Your task to perform on an android device: Open Google Chrome and click the shortcut for Amazon.com Image 0: 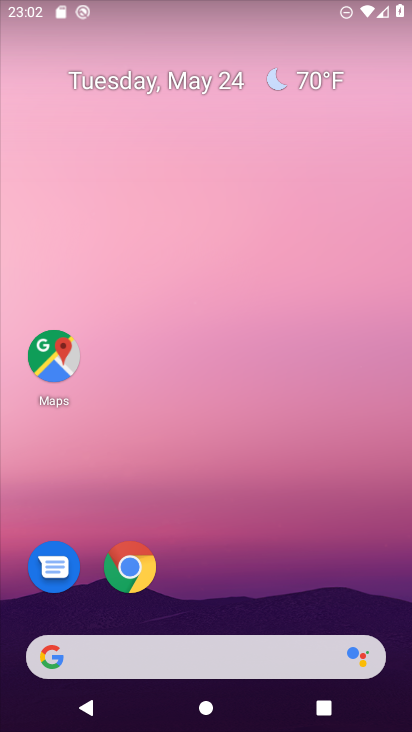
Step 0: click (128, 560)
Your task to perform on an android device: Open Google Chrome and click the shortcut for Amazon.com Image 1: 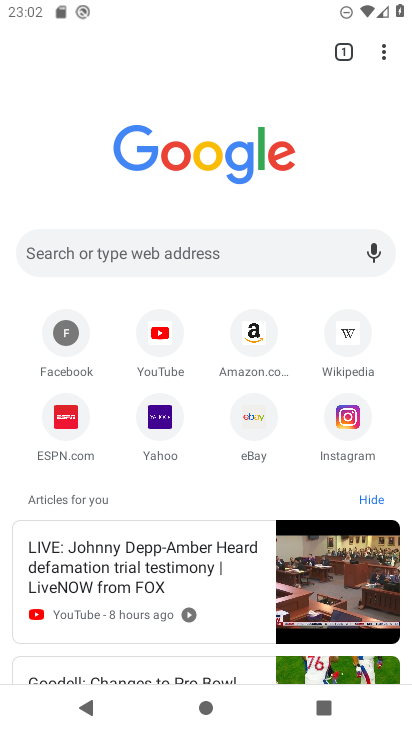
Step 1: click (241, 330)
Your task to perform on an android device: Open Google Chrome and click the shortcut for Amazon.com Image 2: 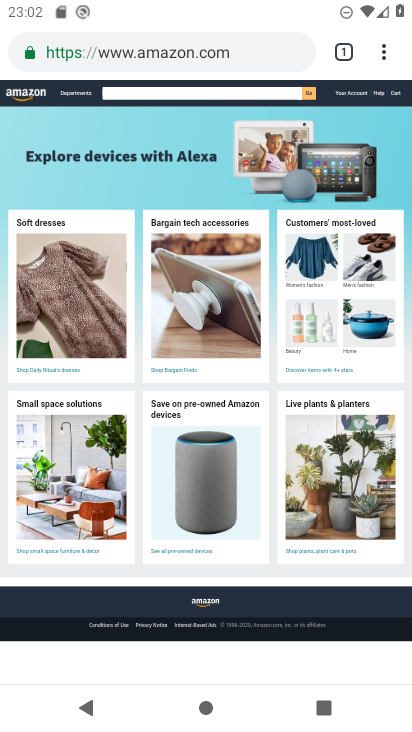
Step 2: task complete